Your task to perform on an android device: install app "VLC for Android" Image 0: 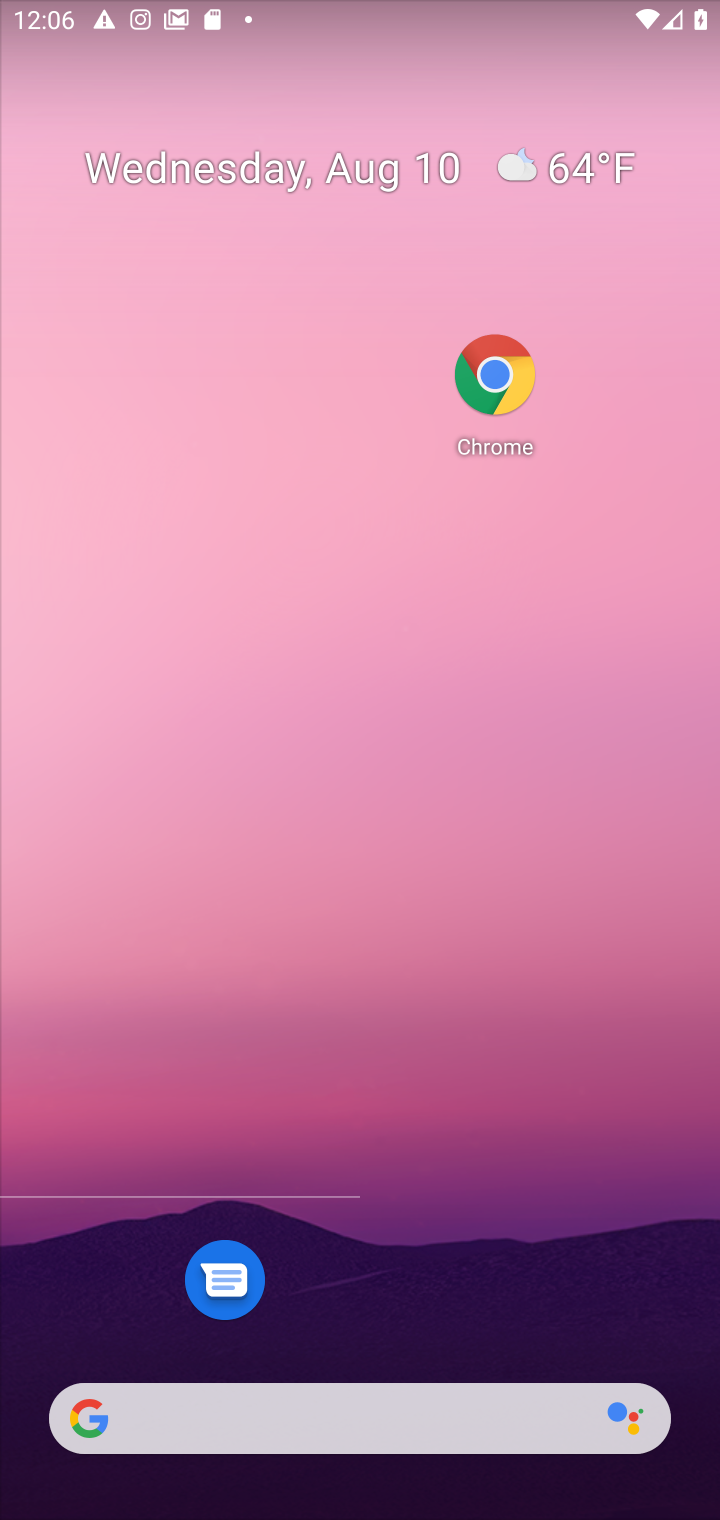
Step 0: press back button
Your task to perform on an android device: install app "VLC for Android" Image 1: 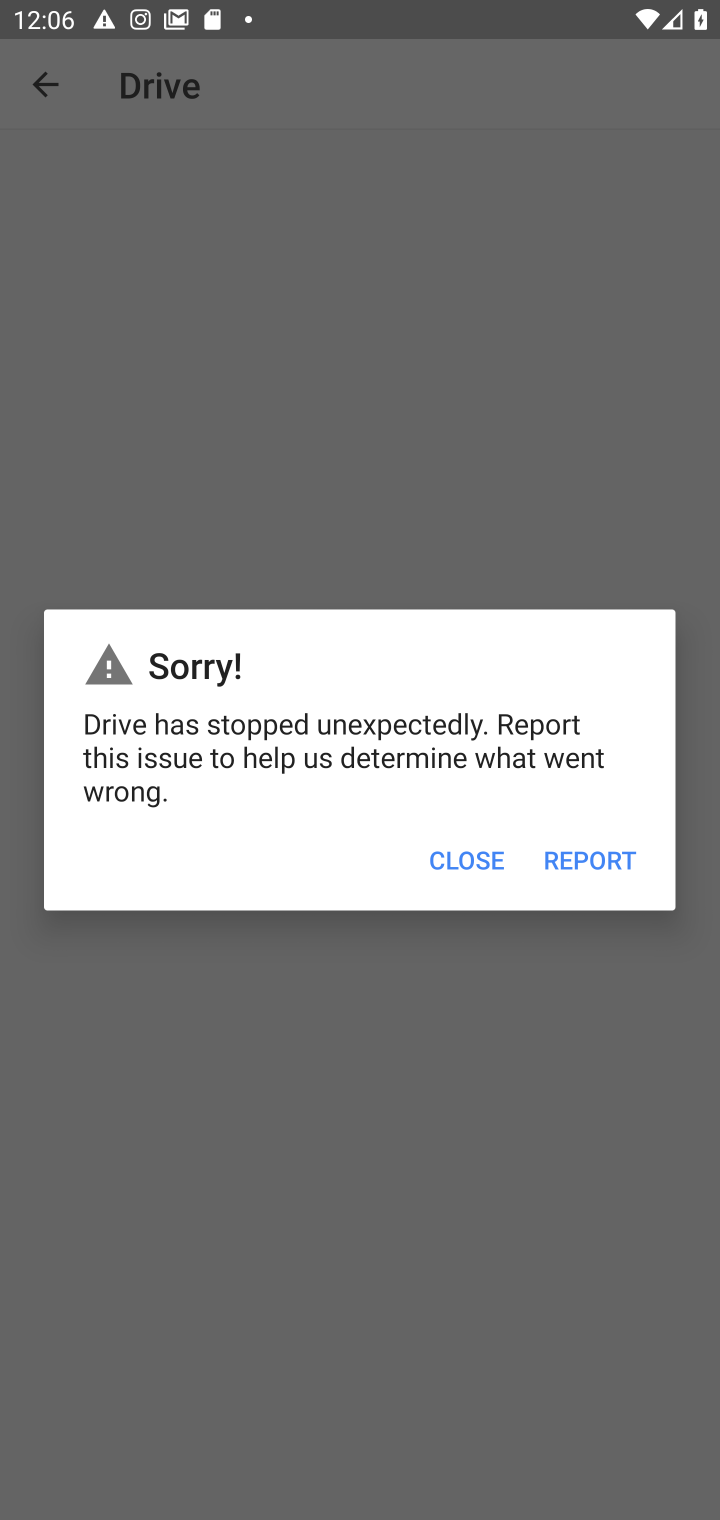
Step 1: click (461, 1379)
Your task to perform on an android device: install app "VLC for Android" Image 2: 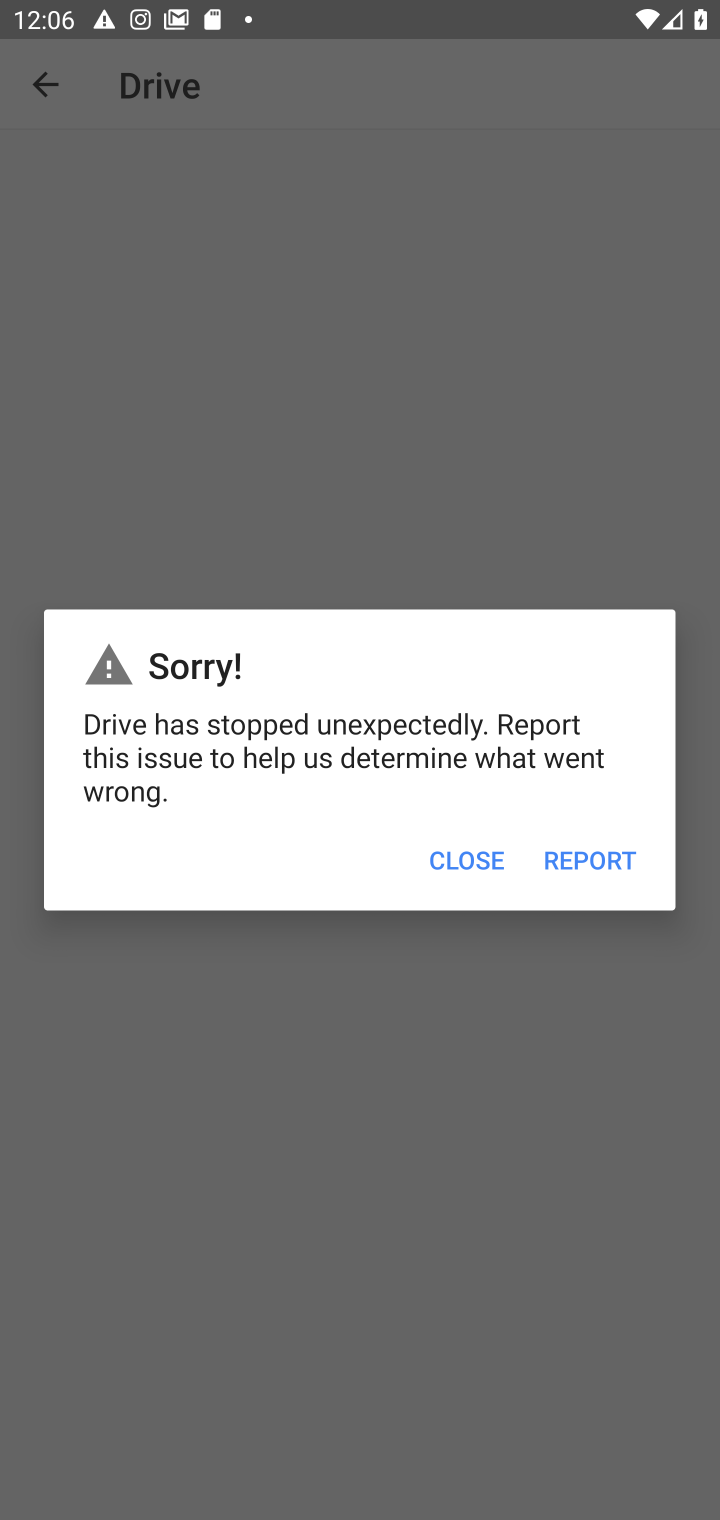
Step 2: press home button
Your task to perform on an android device: install app "VLC for Android" Image 3: 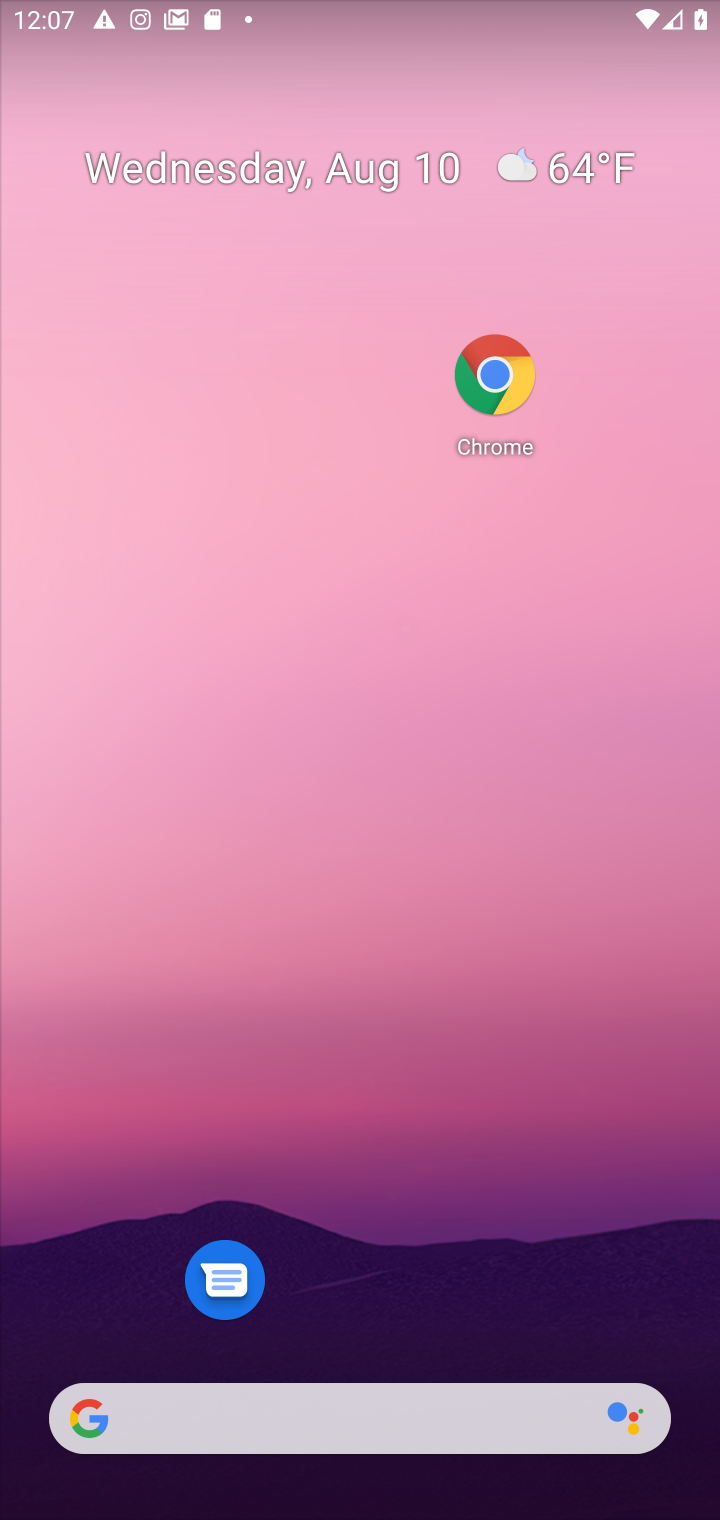
Step 3: drag from (396, 1349) to (245, 58)
Your task to perform on an android device: install app "VLC for Android" Image 4: 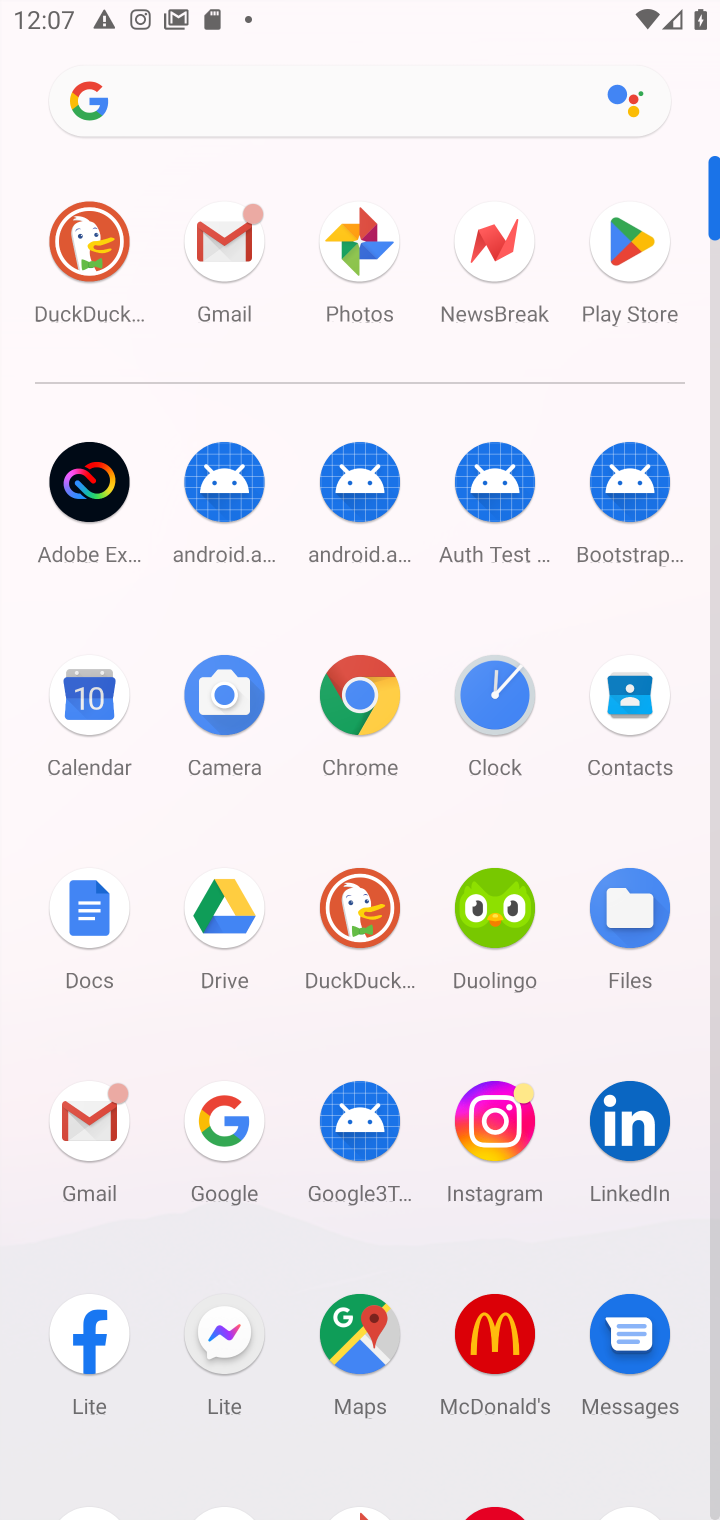
Step 4: click (613, 238)
Your task to perform on an android device: install app "VLC for Android" Image 5: 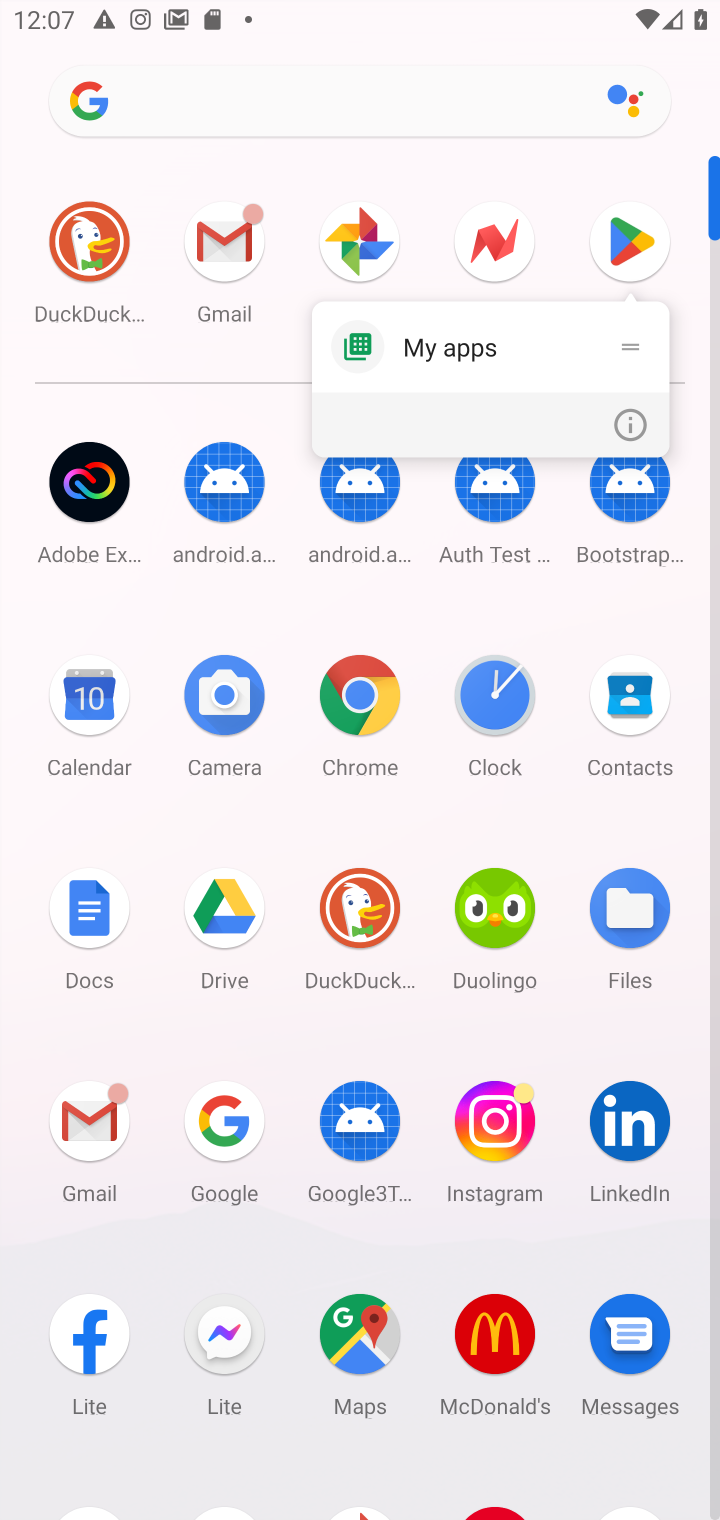
Step 5: click (615, 206)
Your task to perform on an android device: install app "VLC for Android" Image 6: 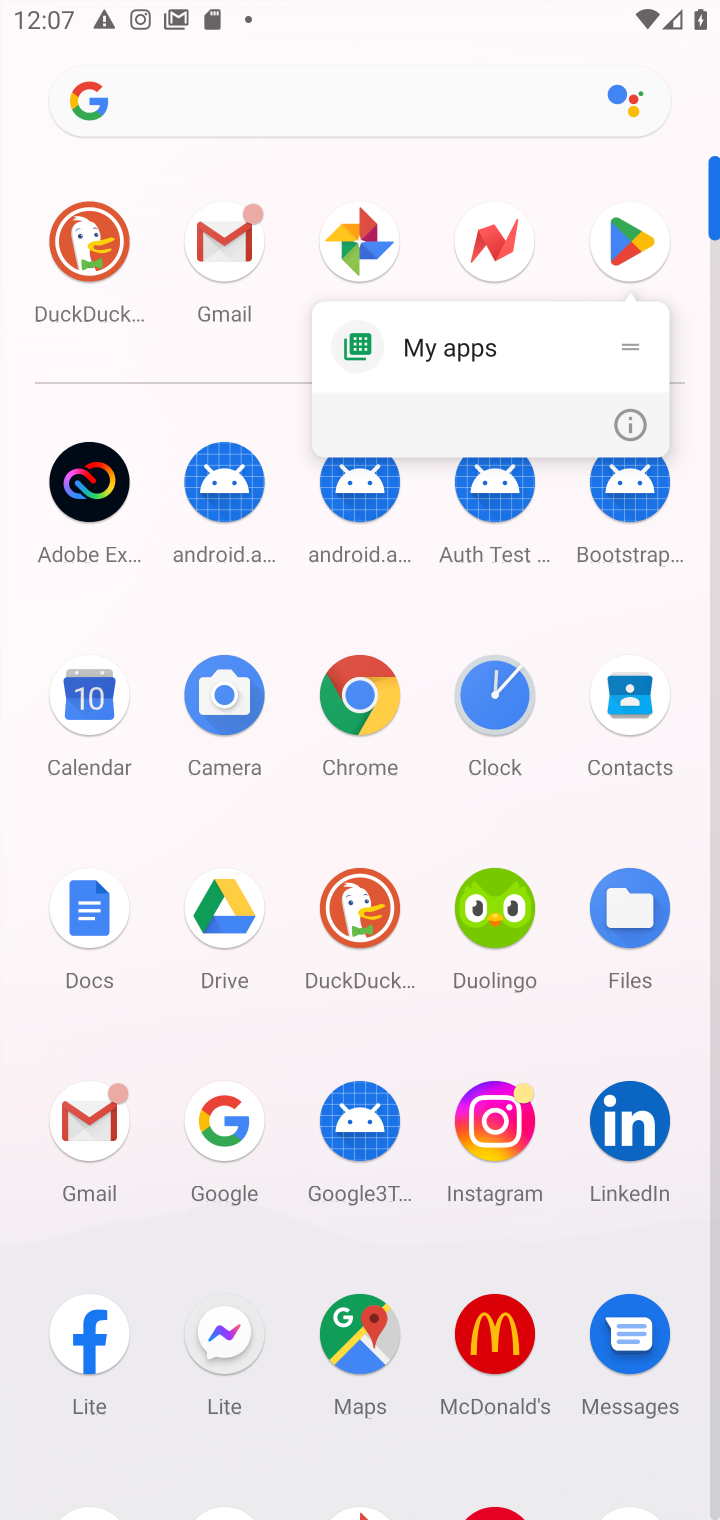
Step 6: click (603, 257)
Your task to perform on an android device: install app "VLC for Android" Image 7: 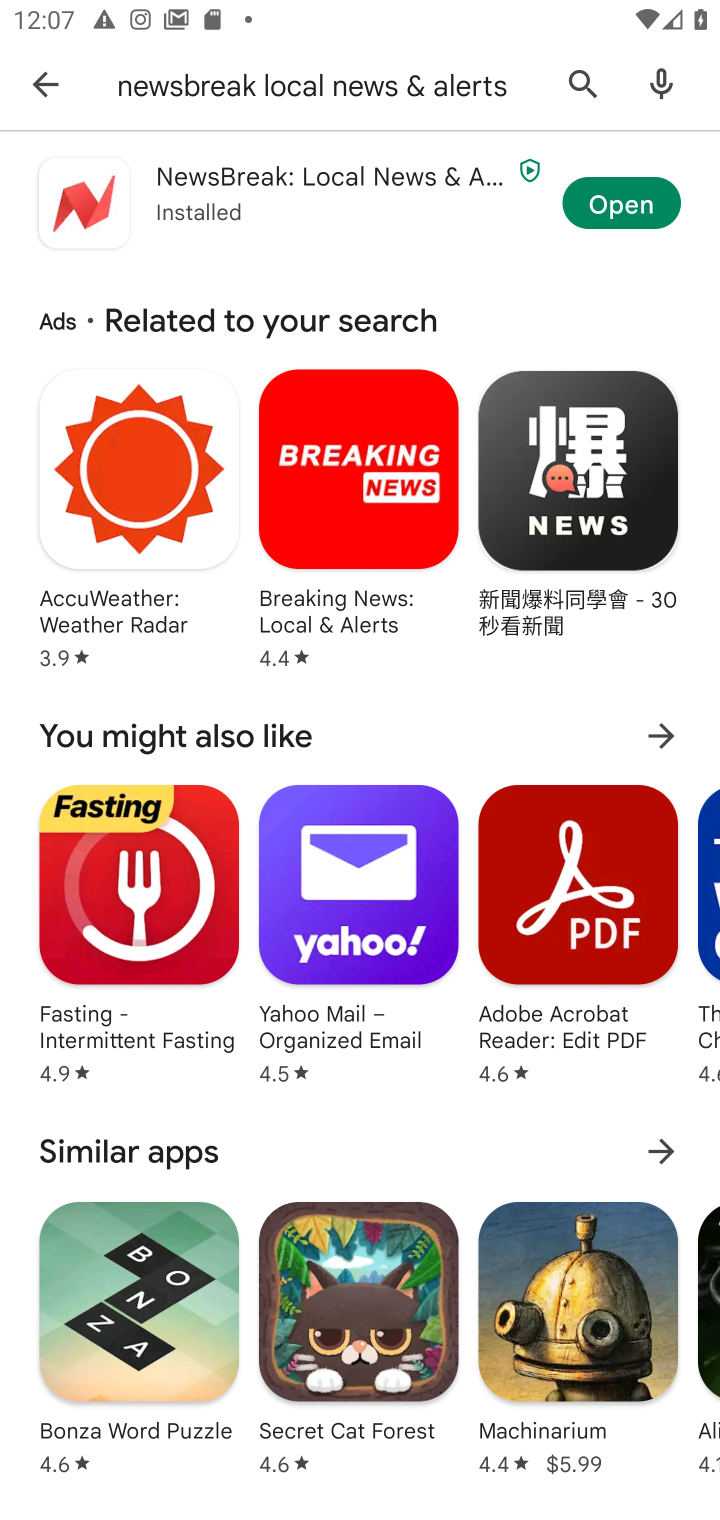
Step 7: click (44, 82)
Your task to perform on an android device: install app "VLC for Android" Image 8: 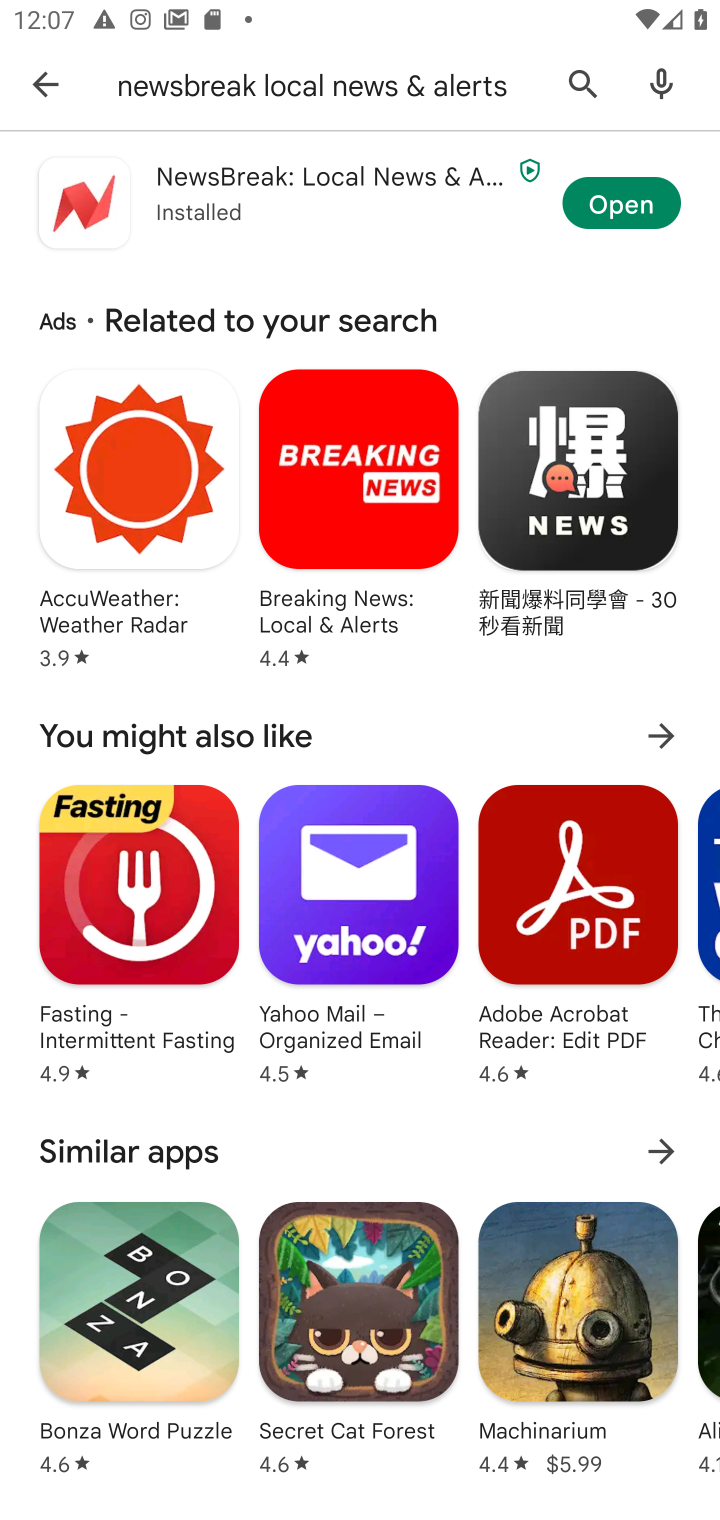
Step 8: click (561, 86)
Your task to perform on an android device: install app "VLC for Android" Image 9: 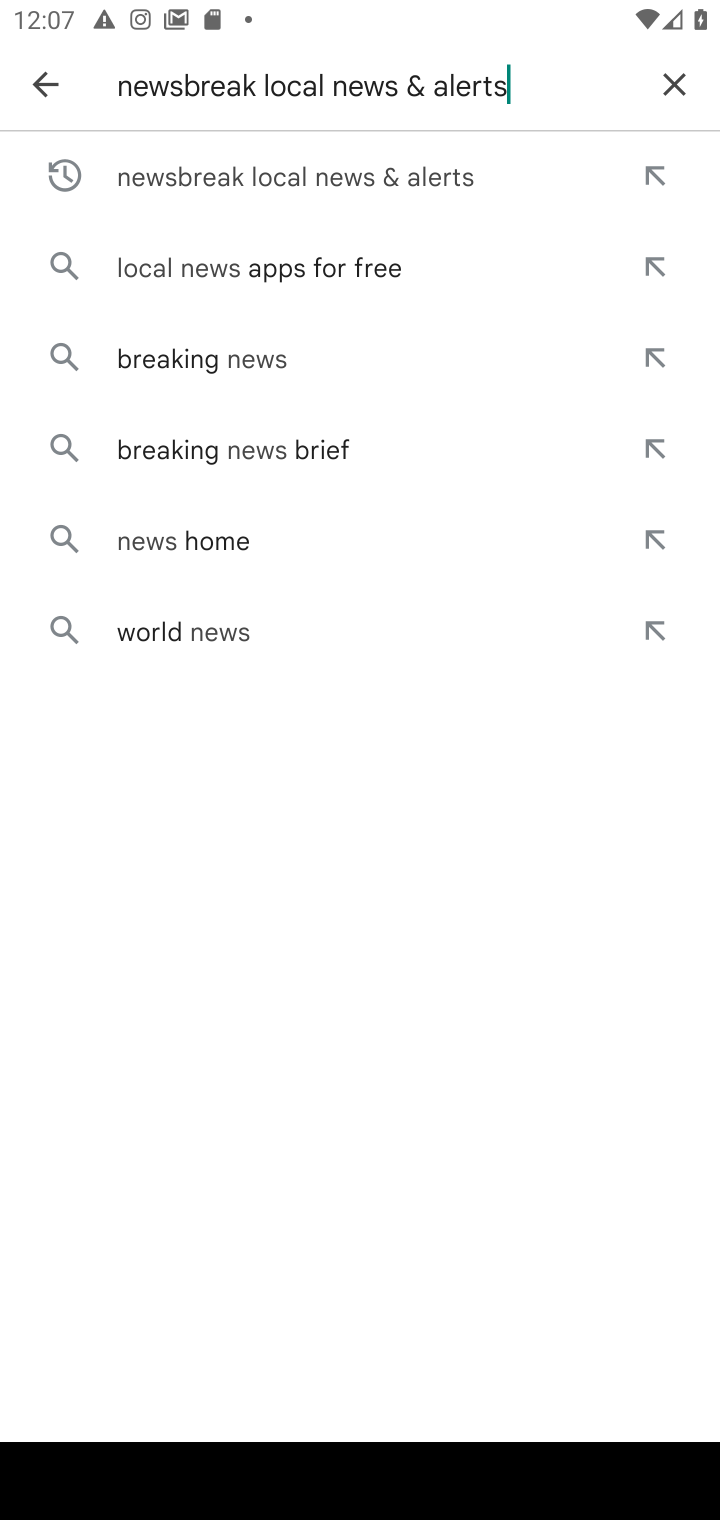
Step 9: click (662, 74)
Your task to perform on an android device: install app "VLC for Android" Image 10: 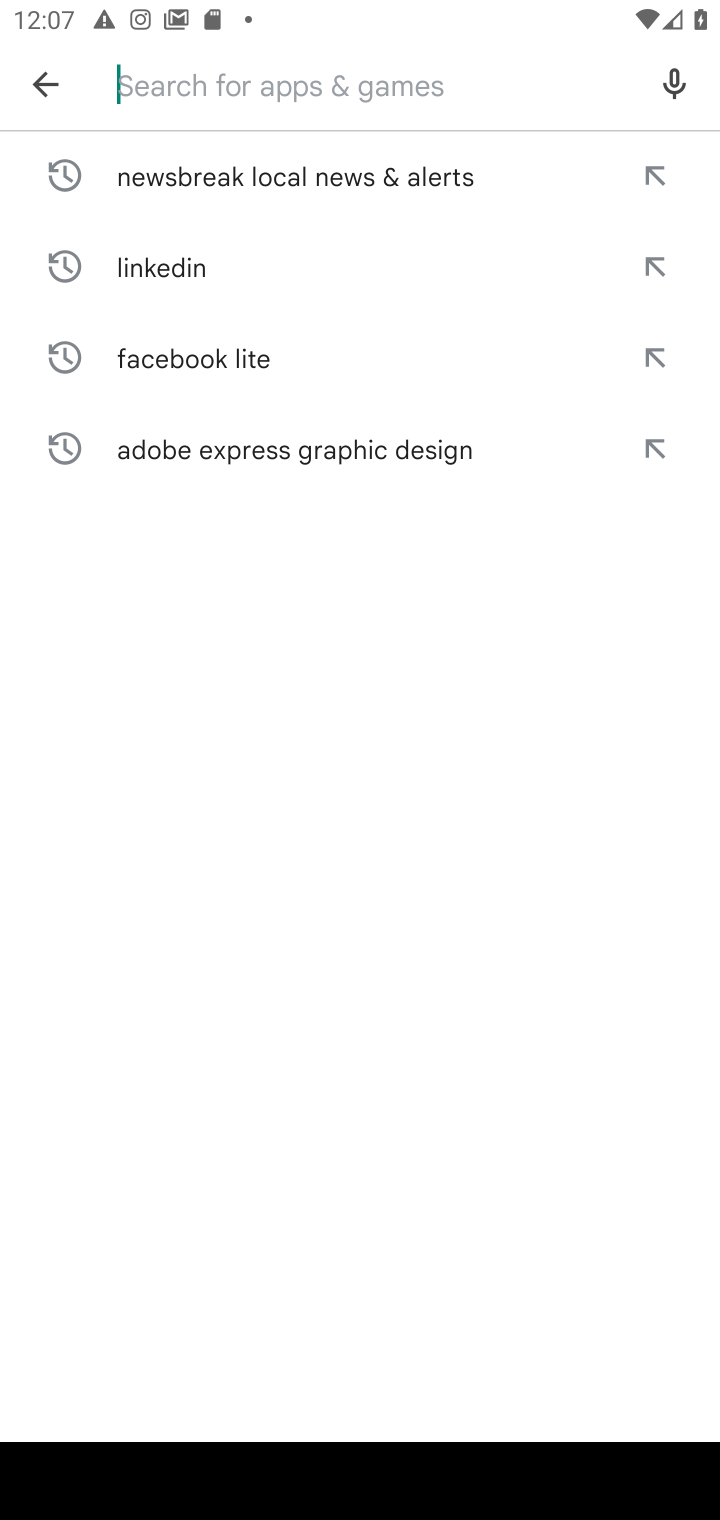
Step 10: type "VLC for Android"
Your task to perform on an android device: install app "VLC for Android" Image 11: 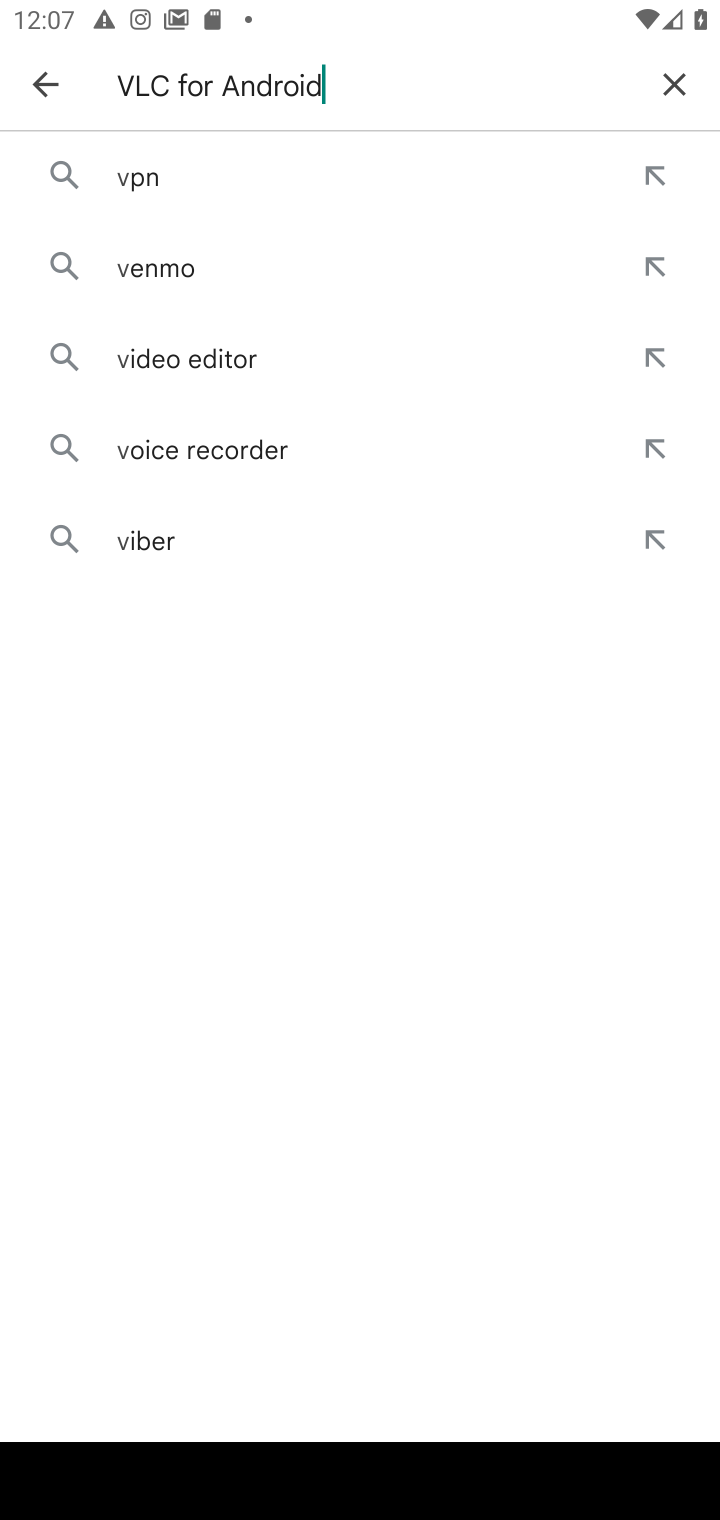
Step 11: type ""
Your task to perform on an android device: install app "VLC for Android" Image 12: 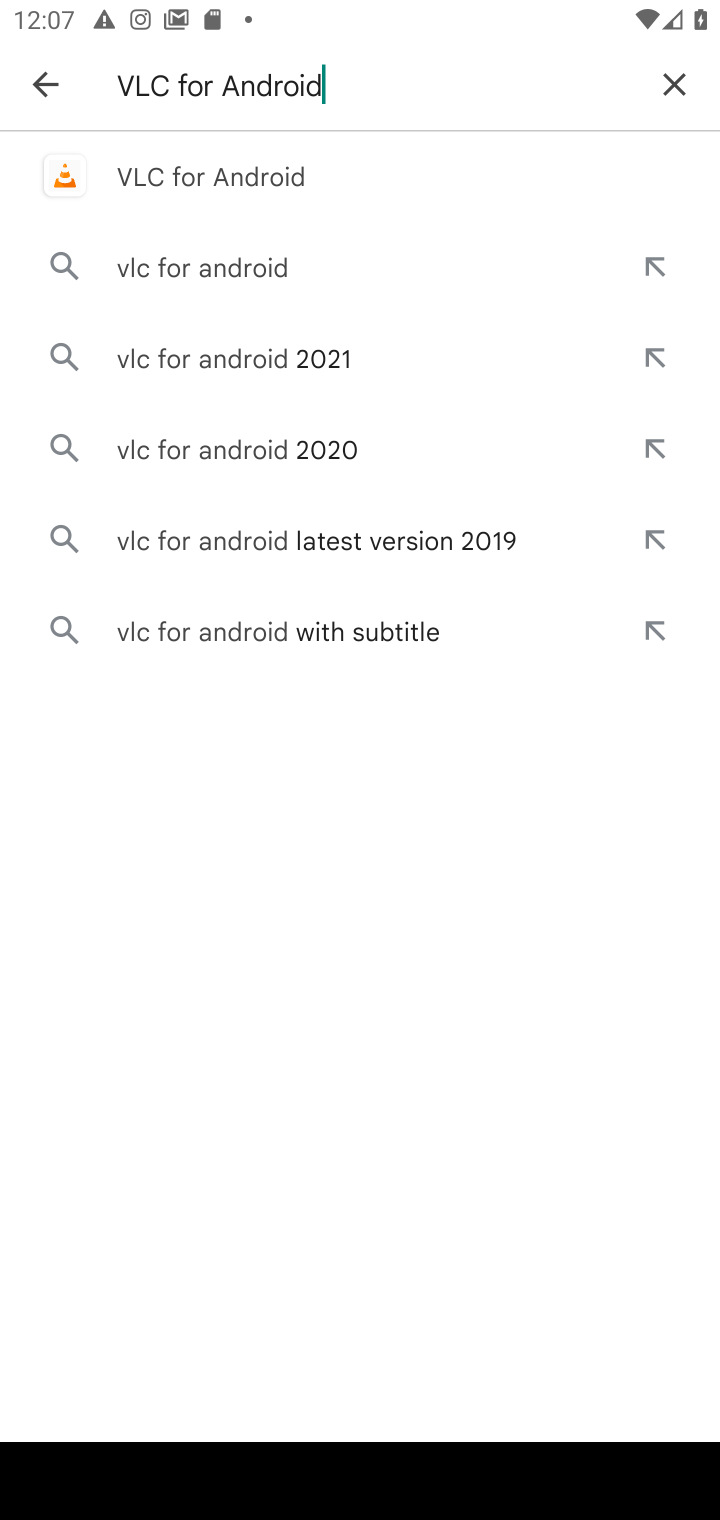
Step 12: click (178, 160)
Your task to perform on an android device: install app "VLC for Android" Image 13: 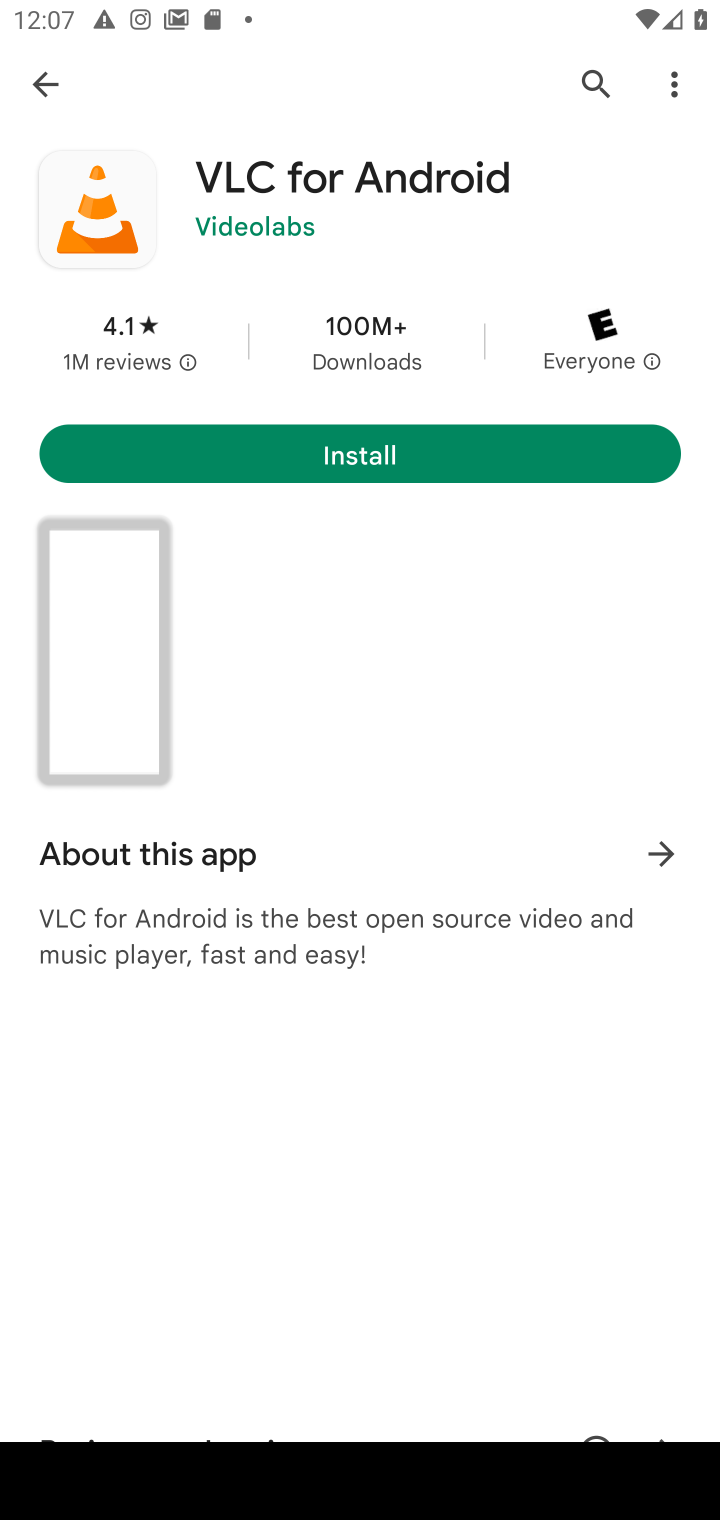
Step 13: click (198, 487)
Your task to perform on an android device: install app "VLC for Android" Image 14: 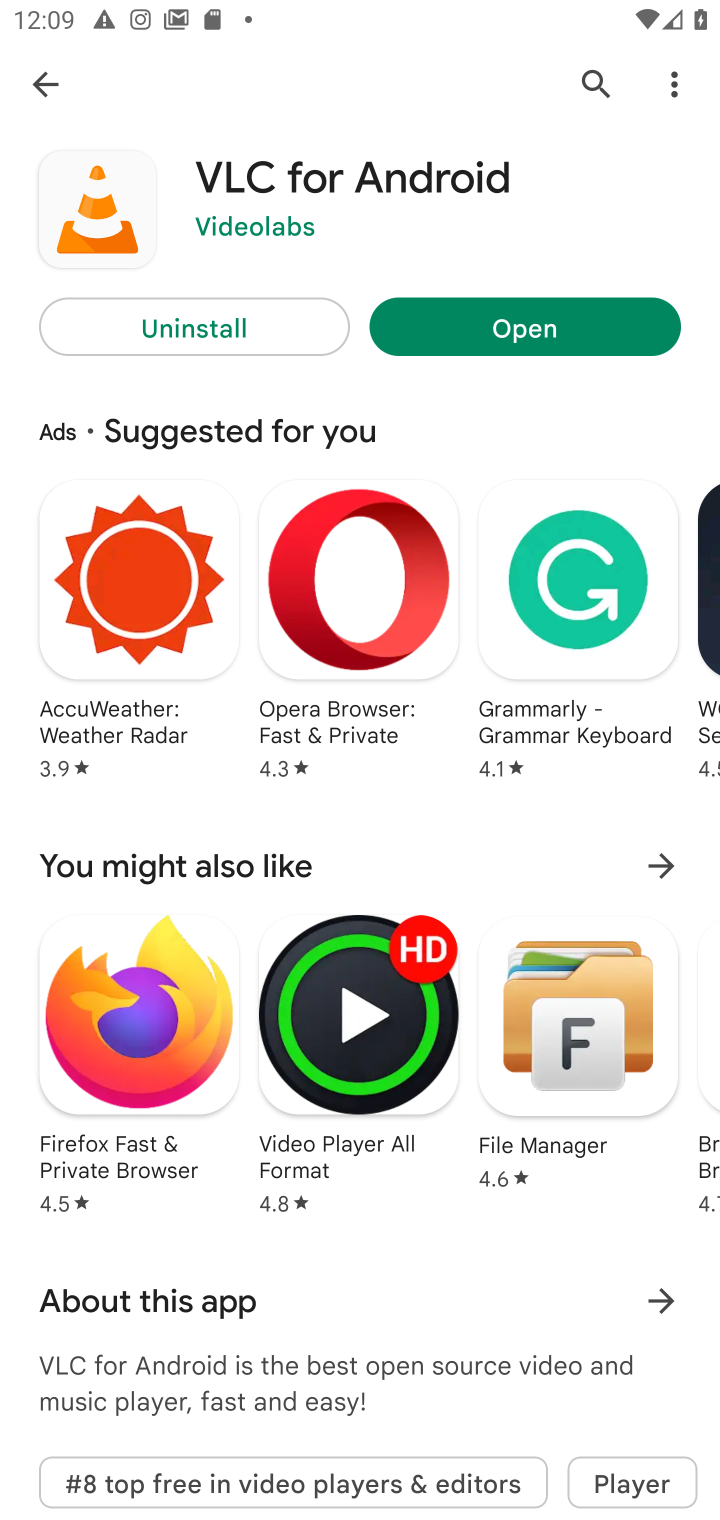
Step 14: click (507, 355)
Your task to perform on an android device: install app "VLC for Android" Image 15: 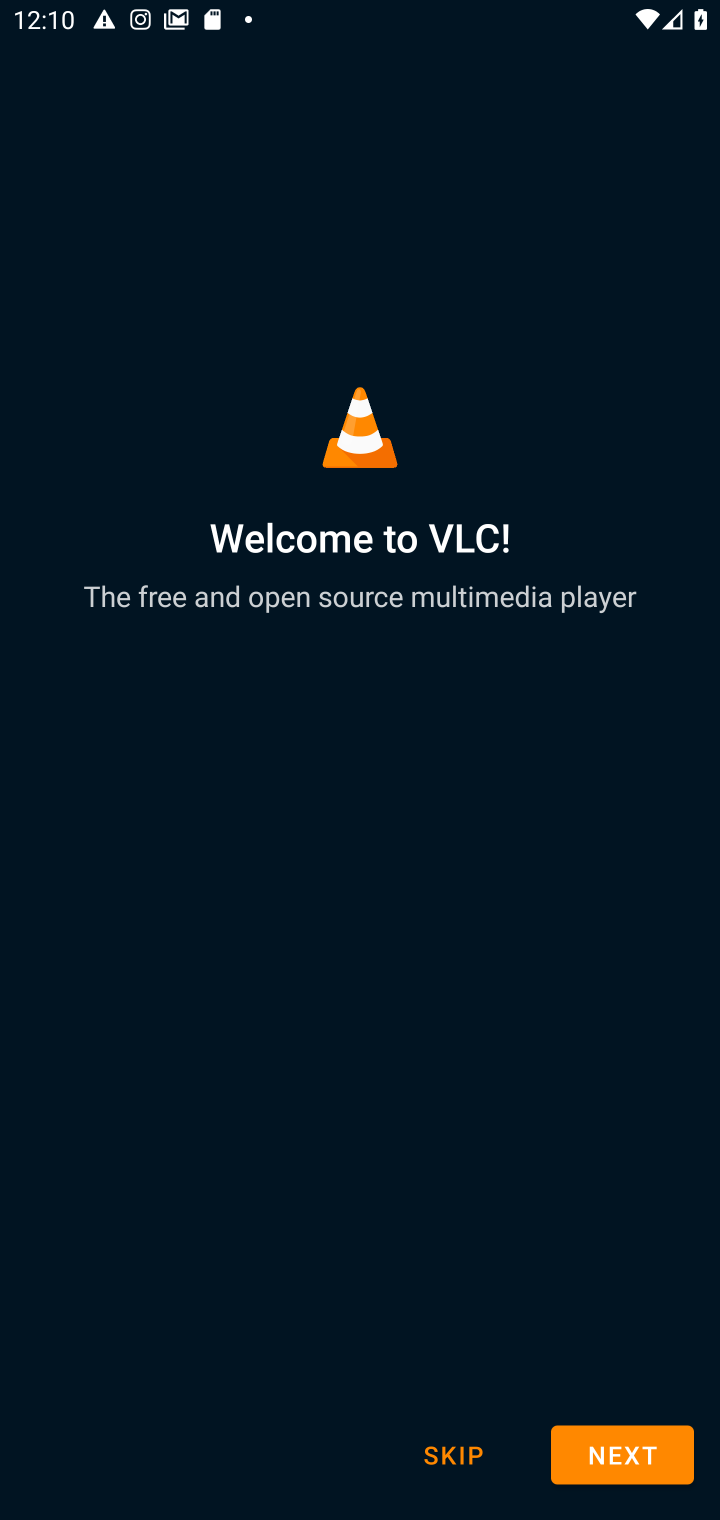
Step 15: task complete